Your task to perform on an android device: delete browsing data in the chrome app Image 0: 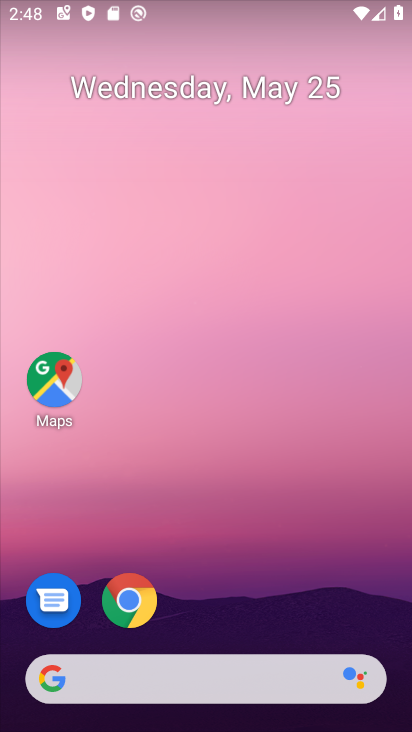
Step 0: click (117, 596)
Your task to perform on an android device: delete browsing data in the chrome app Image 1: 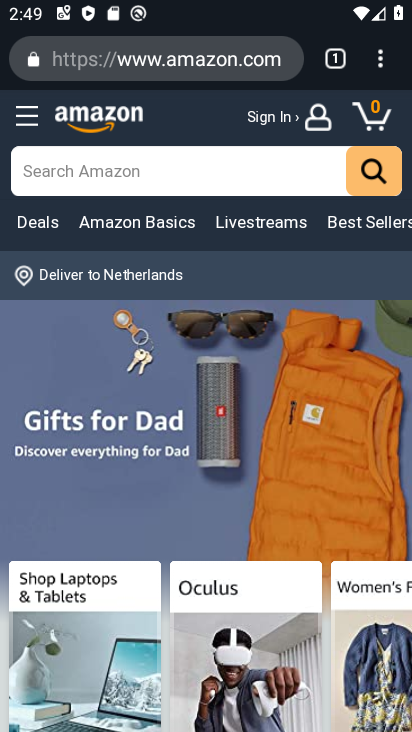
Step 1: click (383, 48)
Your task to perform on an android device: delete browsing data in the chrome app Image 2: 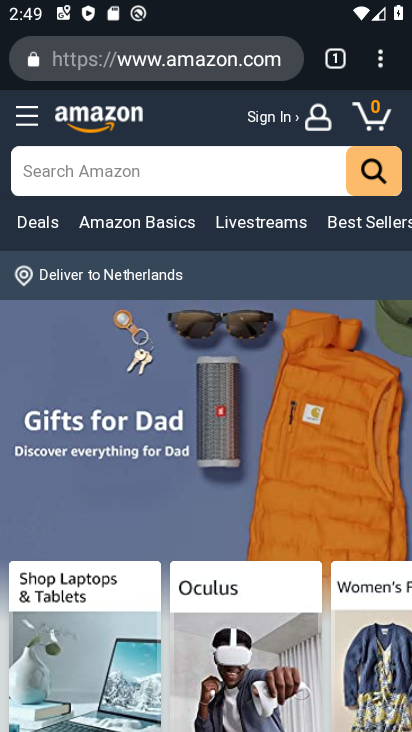
Step 2: click (380, 51)
Your task to perform on an android device: delete browsing data in the chrome app Image 3: 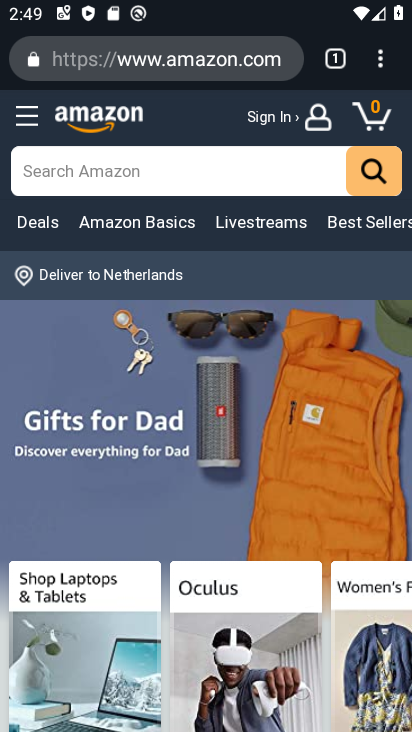
Step 3: click (389, 63)
Your task to perform on an android device: delete browsing data in the chrome app Image 4: 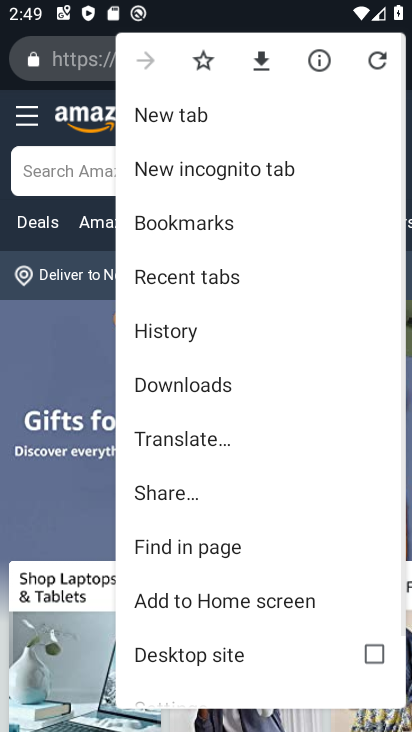
Step 4: drag from (144, 662) to (299, 165)
Your task to perform on an android device: delete browsing data in the chrome app Image 5: 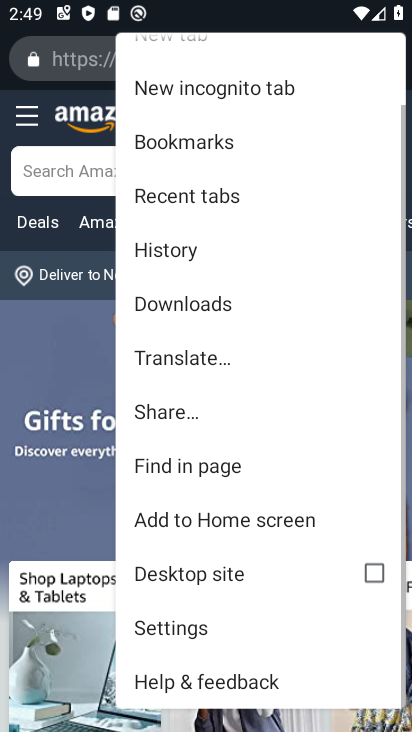
Step 5: click (176, 618)
Your task to perform on an android device: delete browsing data in the chrome app Image 6: 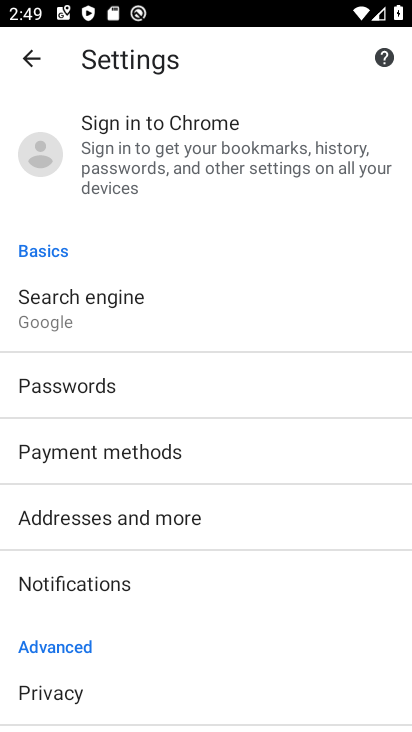
Step 6: drag from (19, 585) to (166, 268)
Your task to perform on an android device: delete browsing data in the chrome app Image 7: 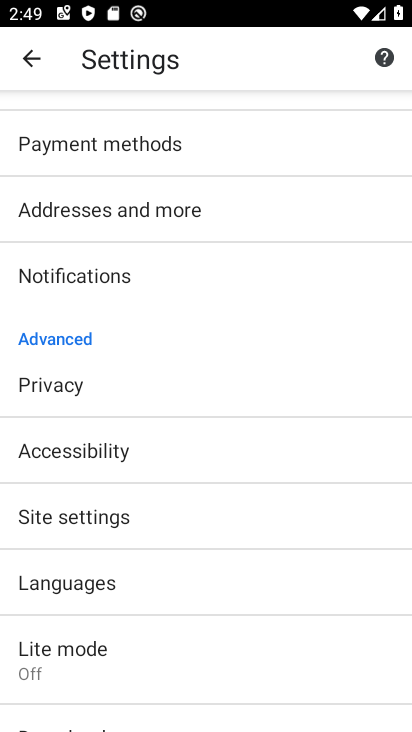
Step 7: click (82, 385)
Your task to perform on an android device: delete browsing data in the chrome app Image 8: 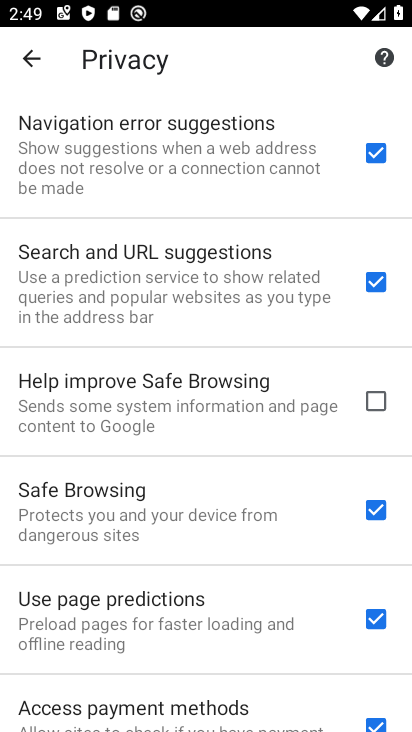
Step 8: task complete